Your task to perform on an android device: uninstall "PlayWell" Image 0: 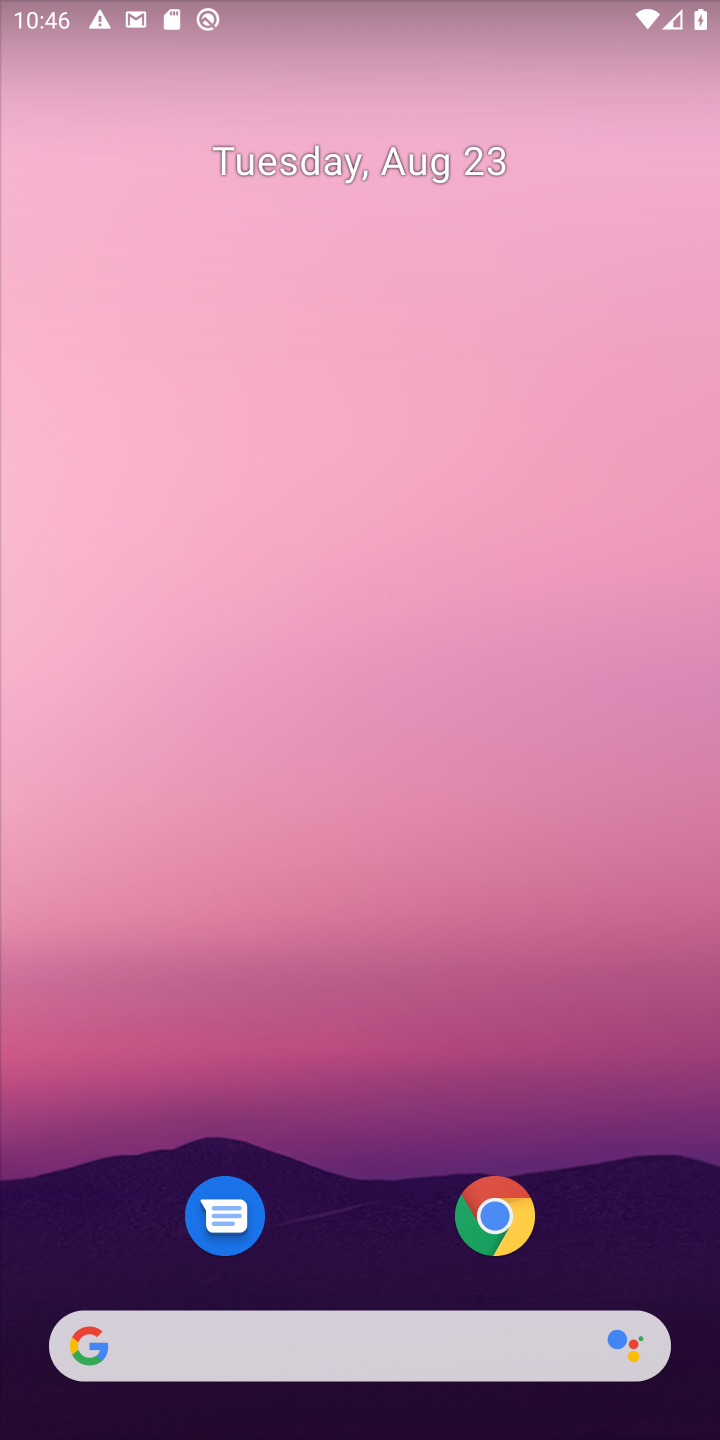
Step 0: drag from (301, 1307) to (259, 161)
Your task to perform on an android device: uninstall "PlayWell" Image 1: 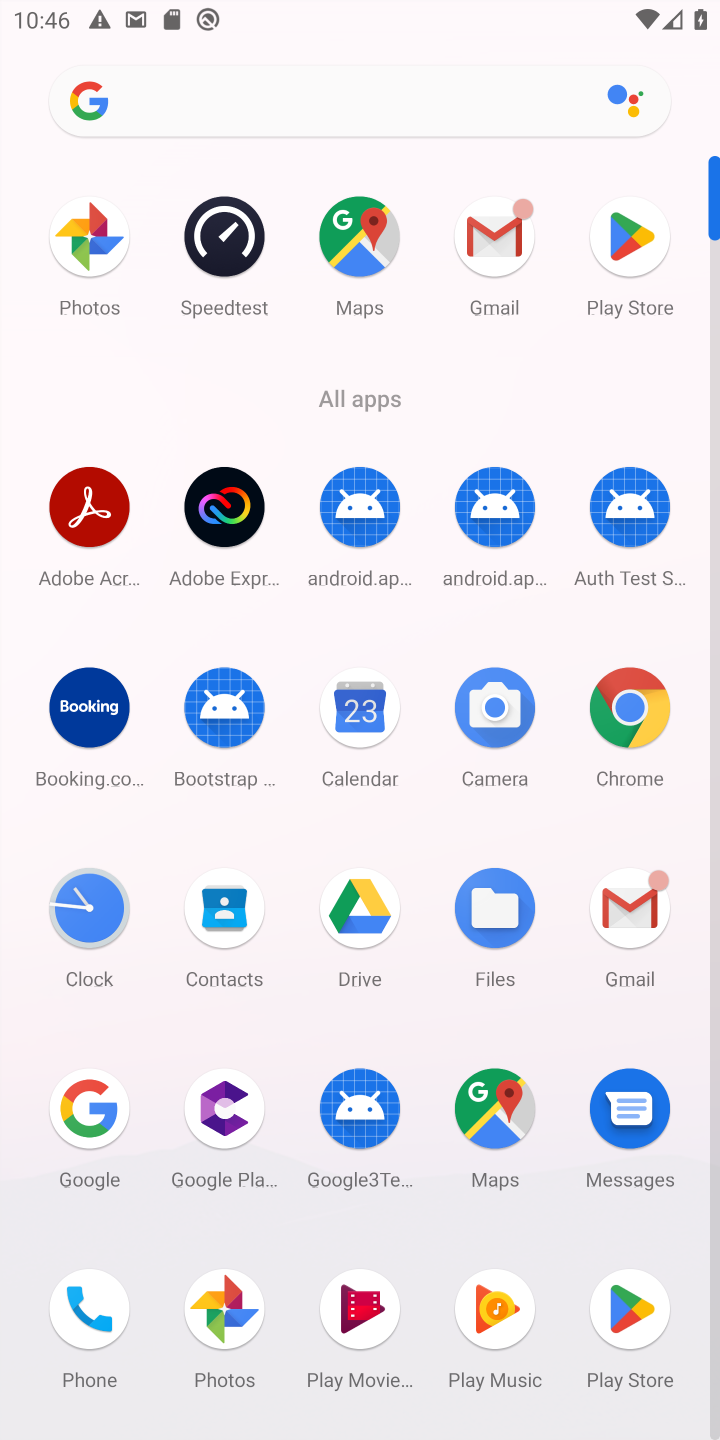
Step 1: click (626, 246)
Your task to perform on an android device: uninstall "PlayWell" Image 2: 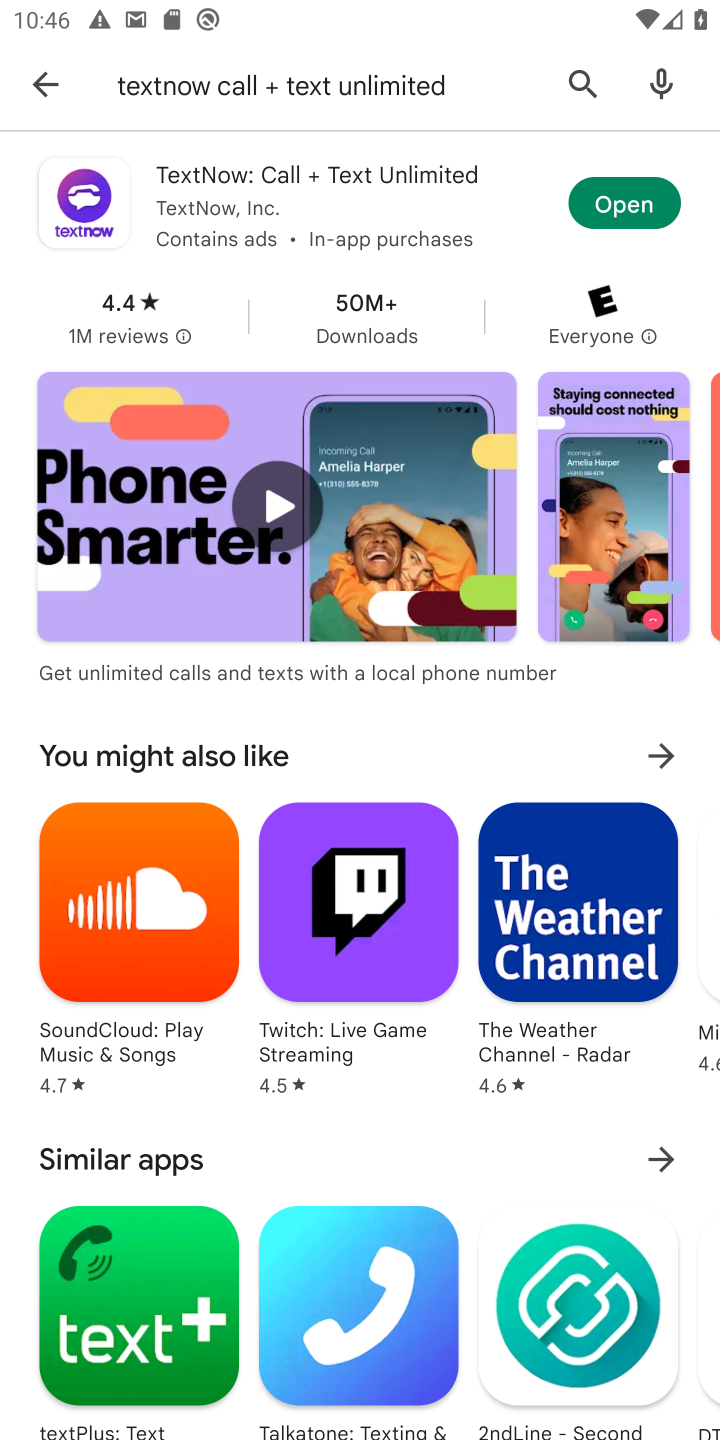
Step 2: press back button
Your task to perform on an android device: uninstall "PlayWell" Image 3: 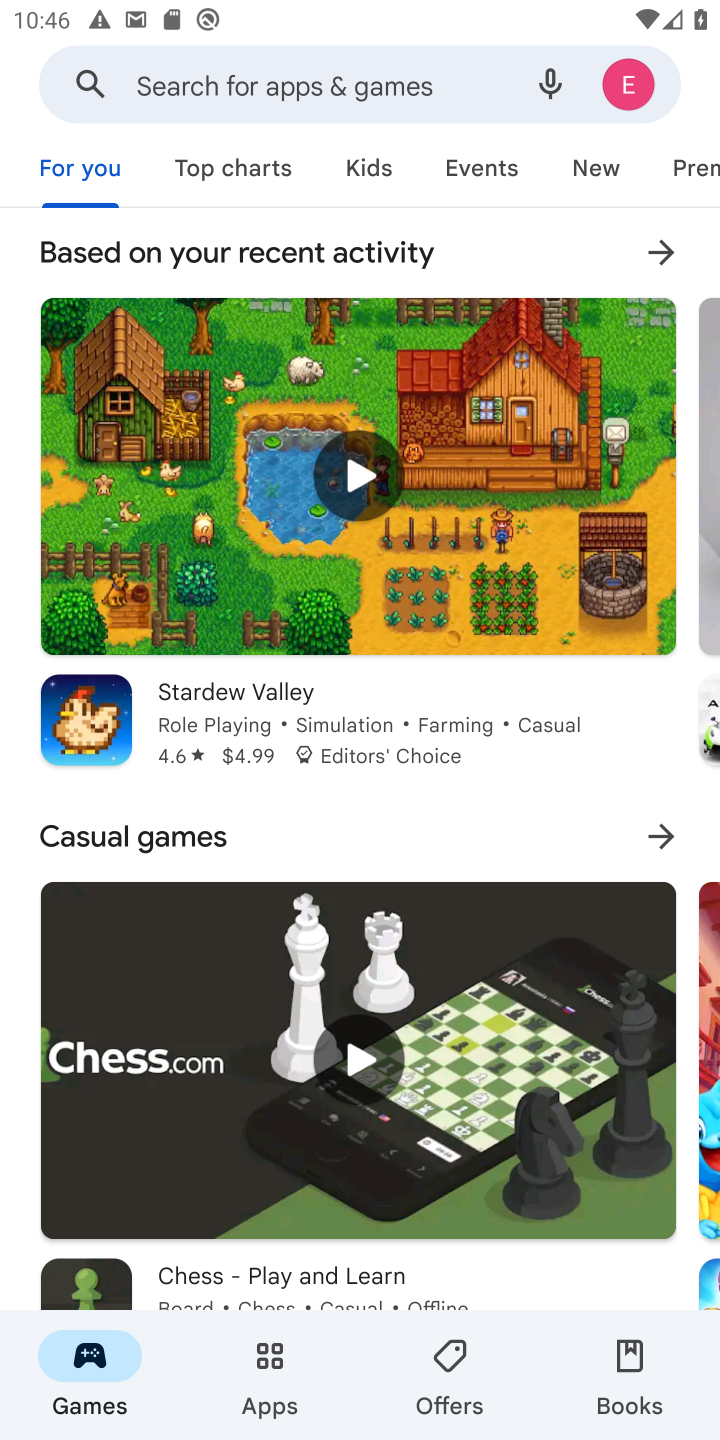
Step 3: click (400, 100)
Your task to perform on an android device: uninstall "PlayWell" Image 4: 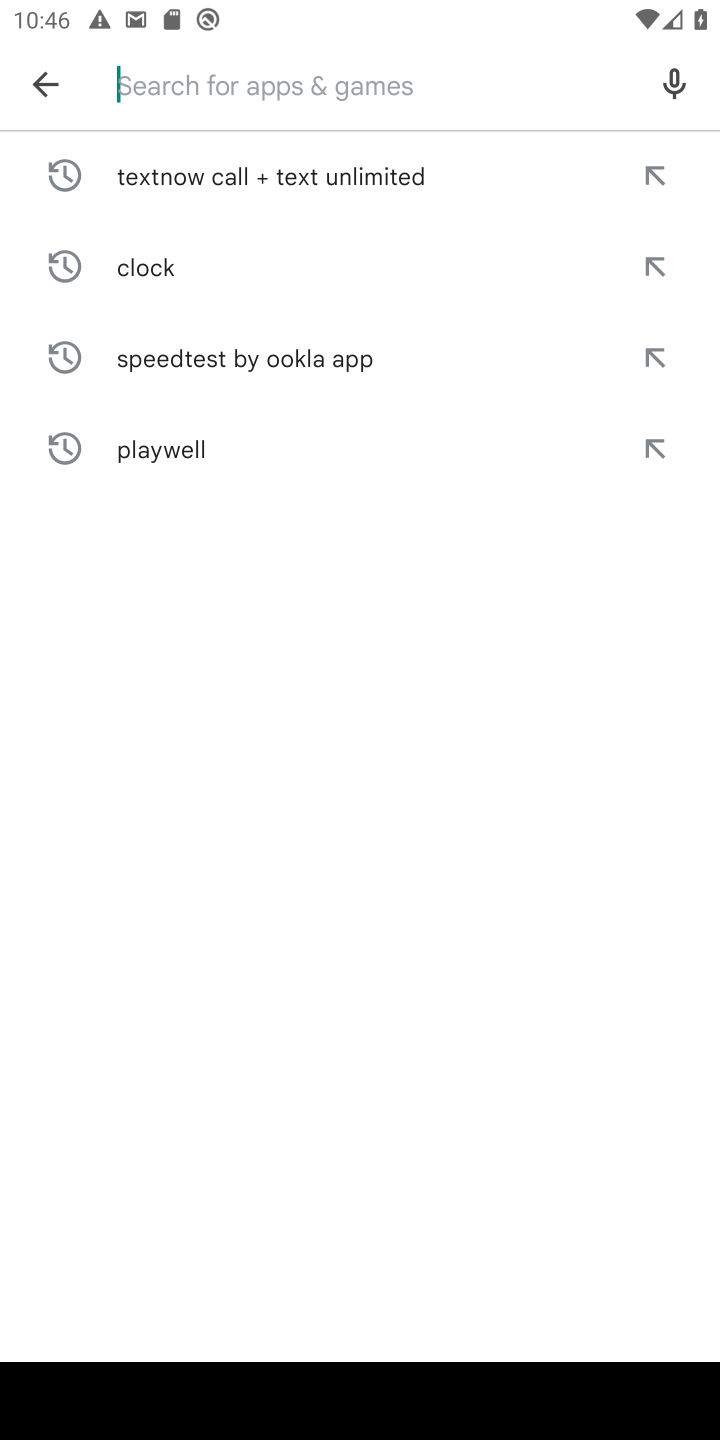
Step 4: type "PlayWell"
Your task to perform on an android device: uninstall "PlayWell" Image 5: 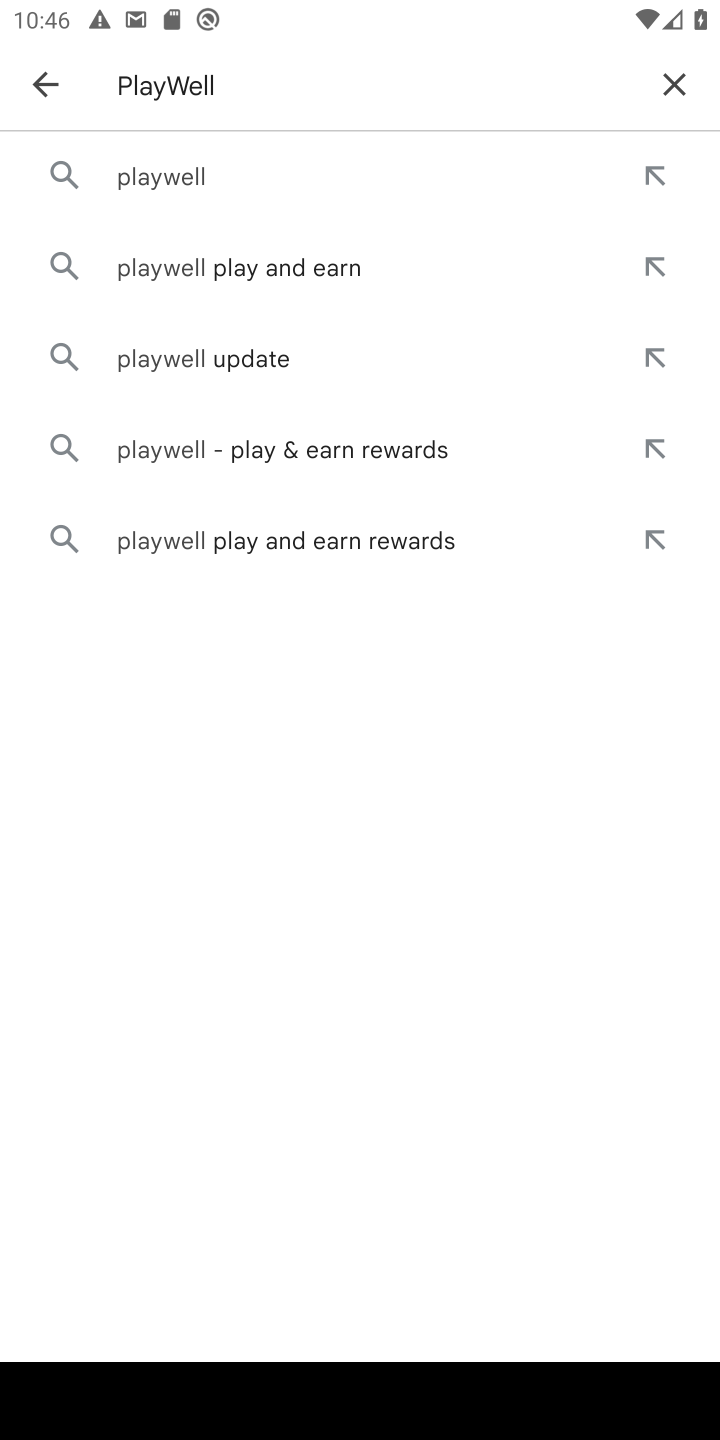
Step 5: click (181, 178)
Your task to perform on an android device: uninstall "PlayWell" Image 6: 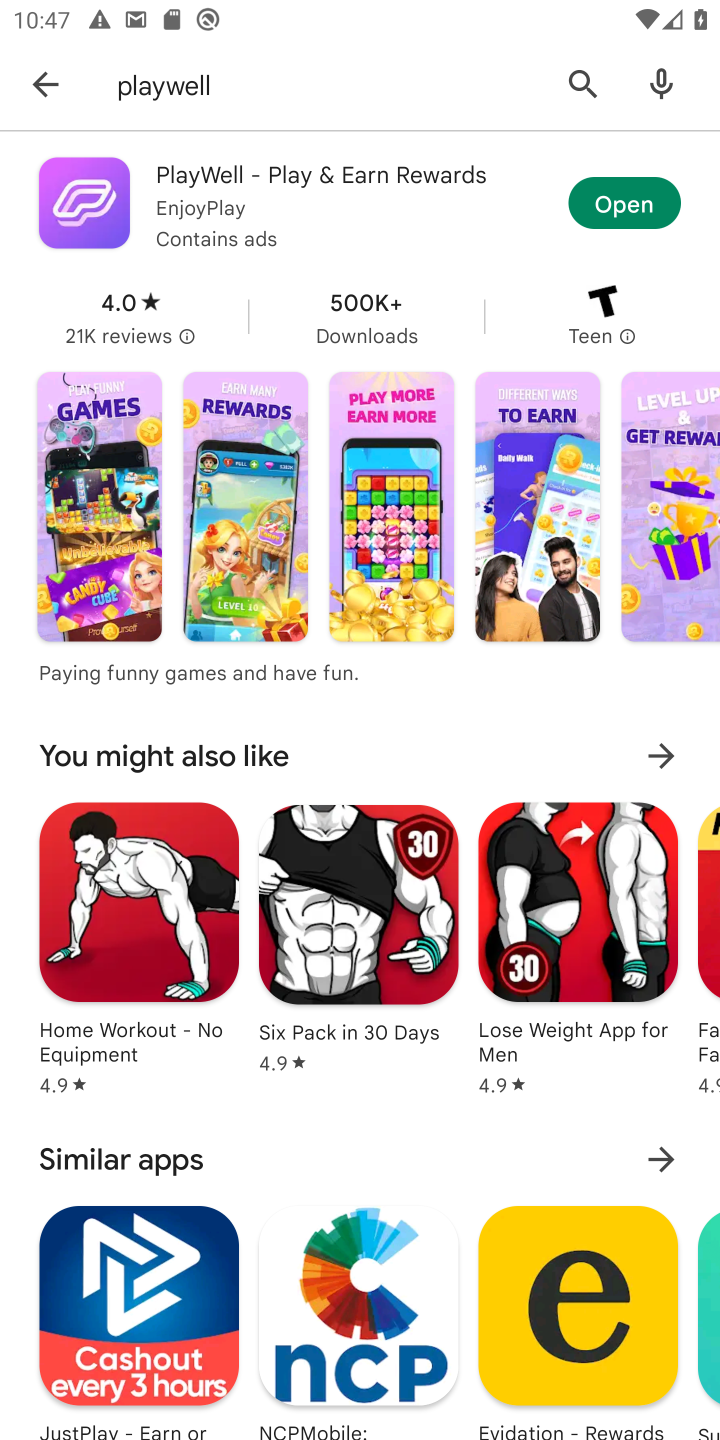
Step 6: click (304, 168)
Your task to perform on an android device: uninstall "PlayWell" Image 7: 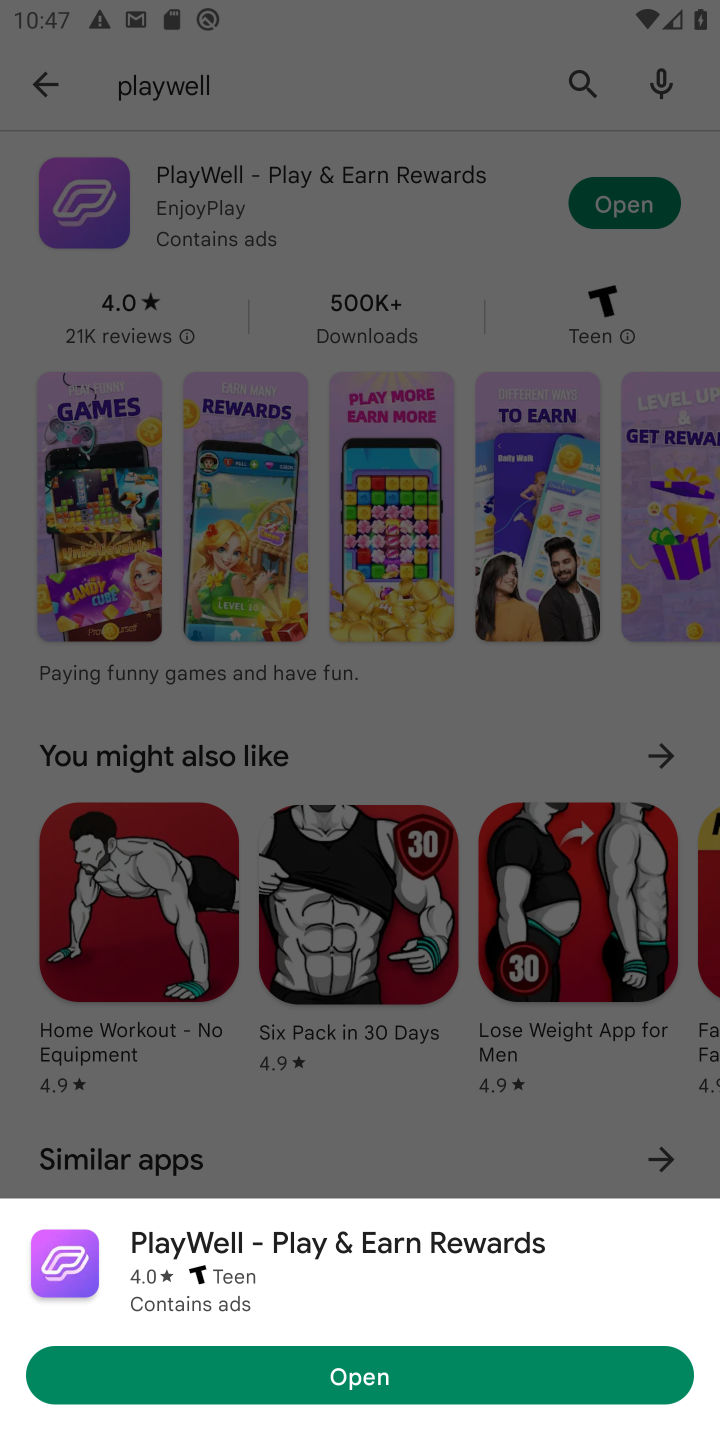
Step 7: click (395, 213)
Your task to perform on an android device: uninstall "PlayWell" Image 8: 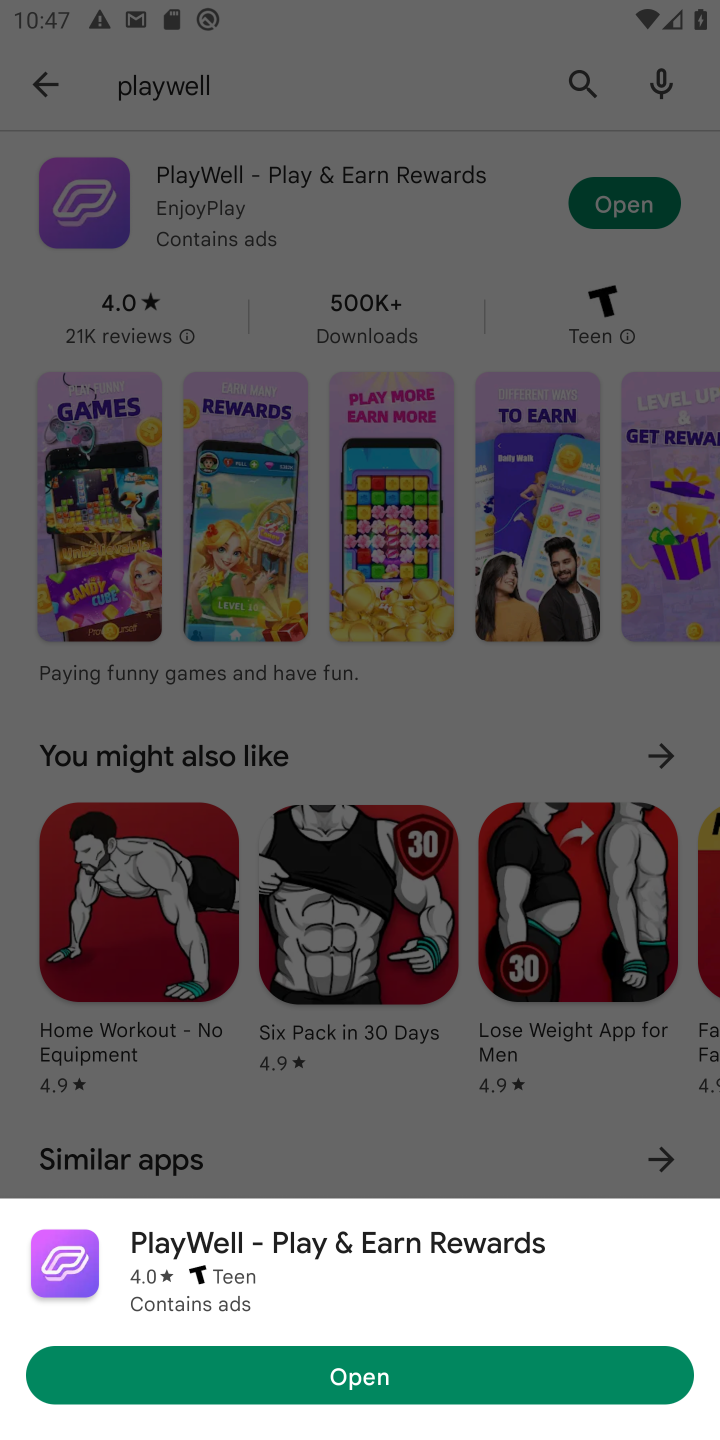
Step 8: click (395, 213)
Your task to perform on an android device: uninstall "PlayWell" Image 9: 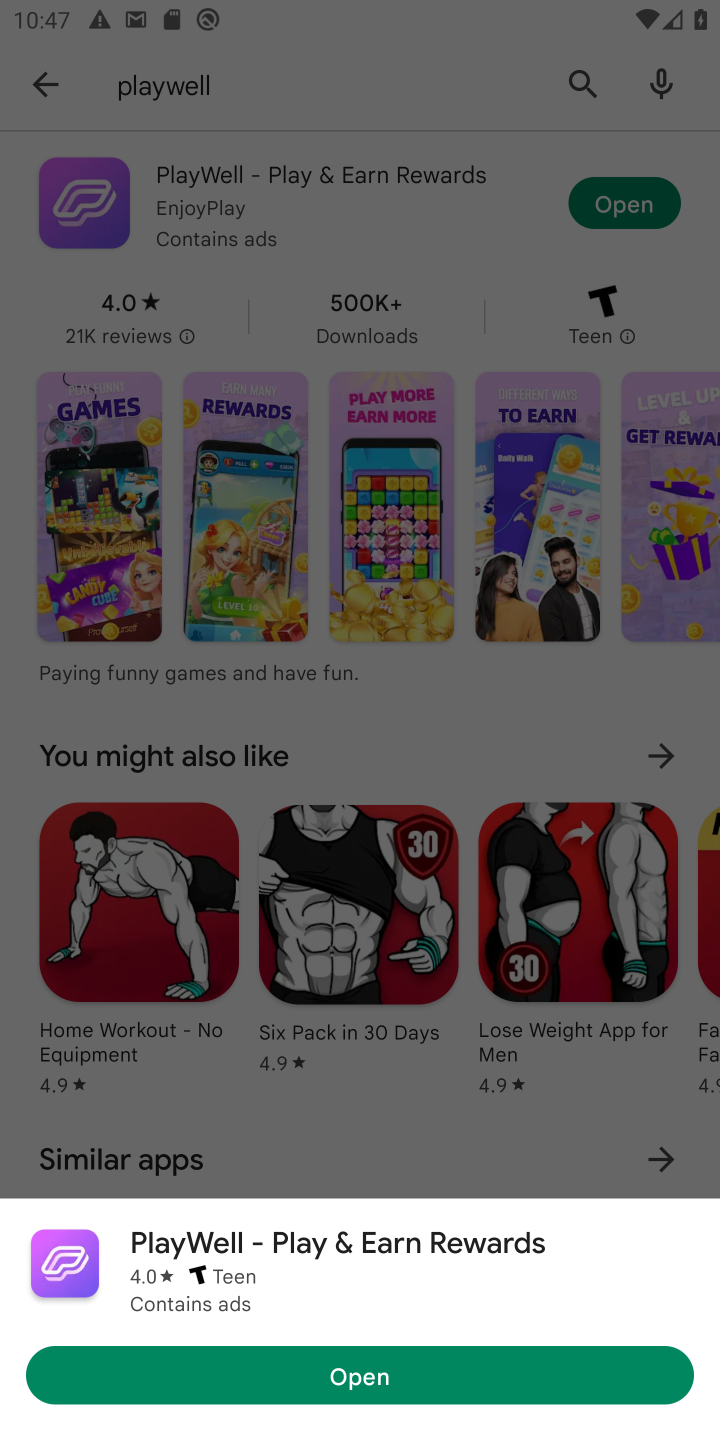
Step 9: click (120, 212)
Your task to perform on an android device: uninstall "PlayWell" Image 10: 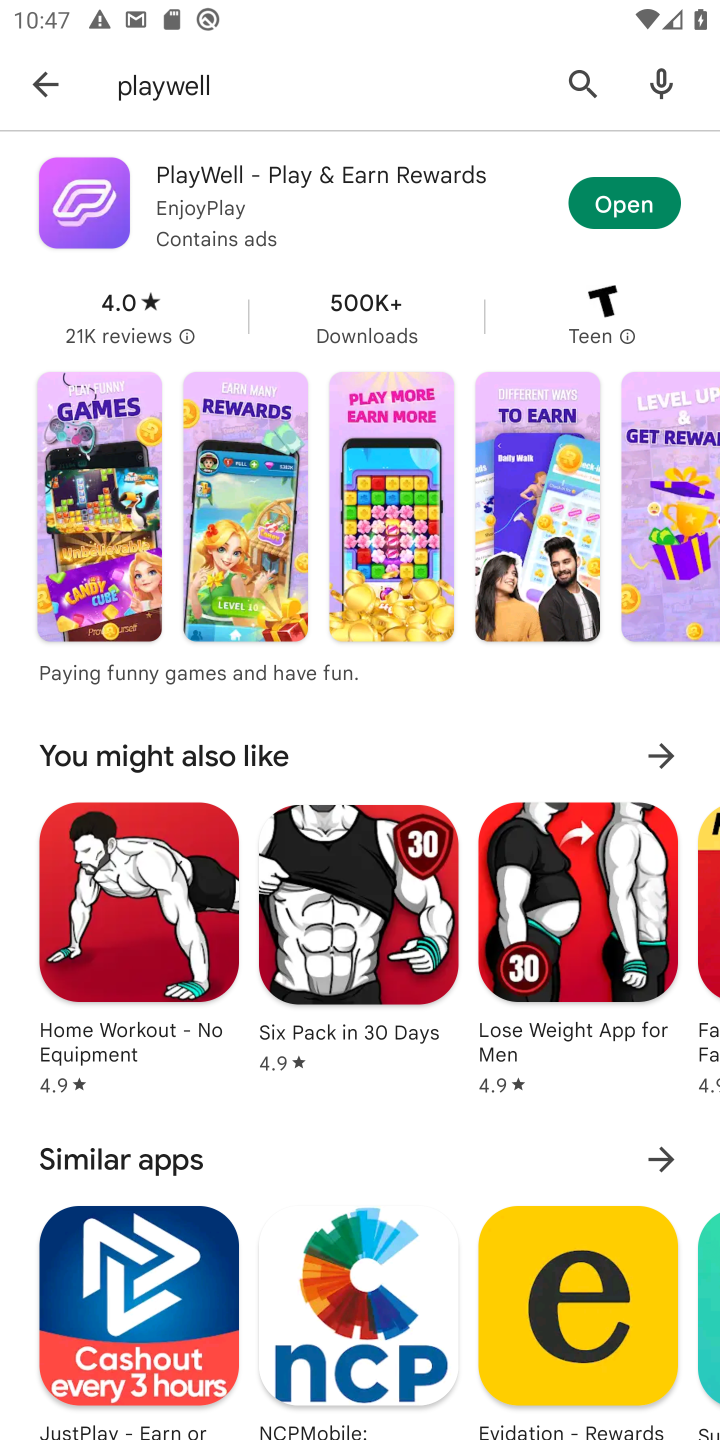
Step 10: click (120, 212)
Your task to perform on an android device: uninstall "PlayWell" Image 11: 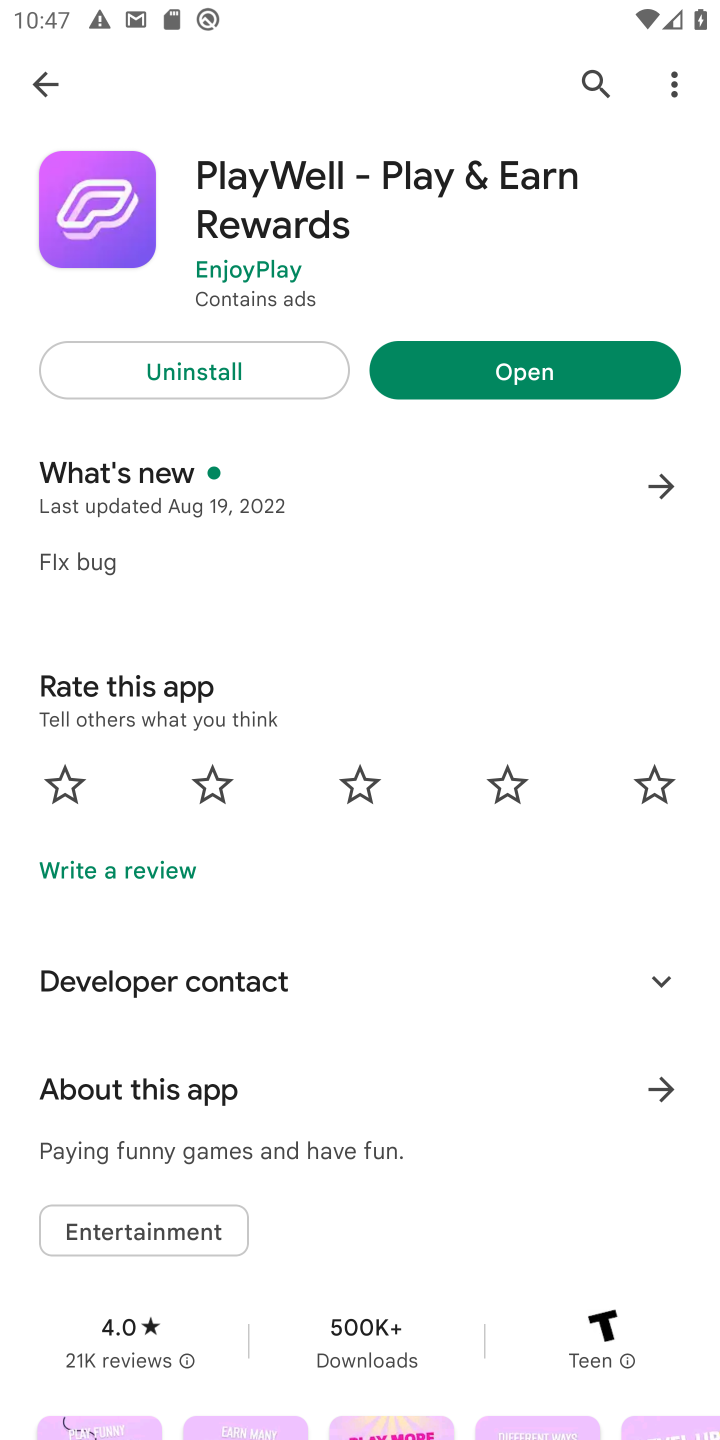
Step 11: click (254, 366)
Your task to perform on an android device: uninstall "PlayWell" Image 12: 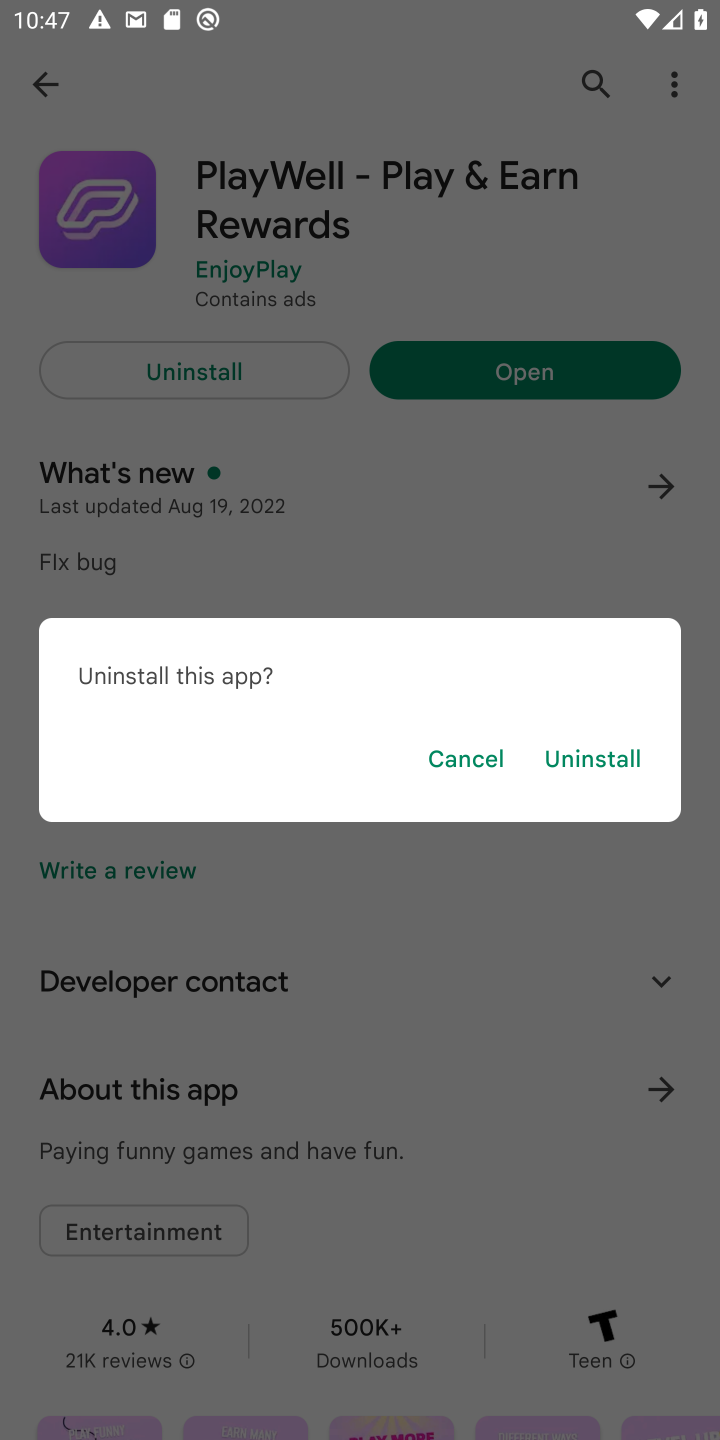
Step 12: click (591, 753)
Your task to perform on an android device: uninstall "PlayWell" Image 13: 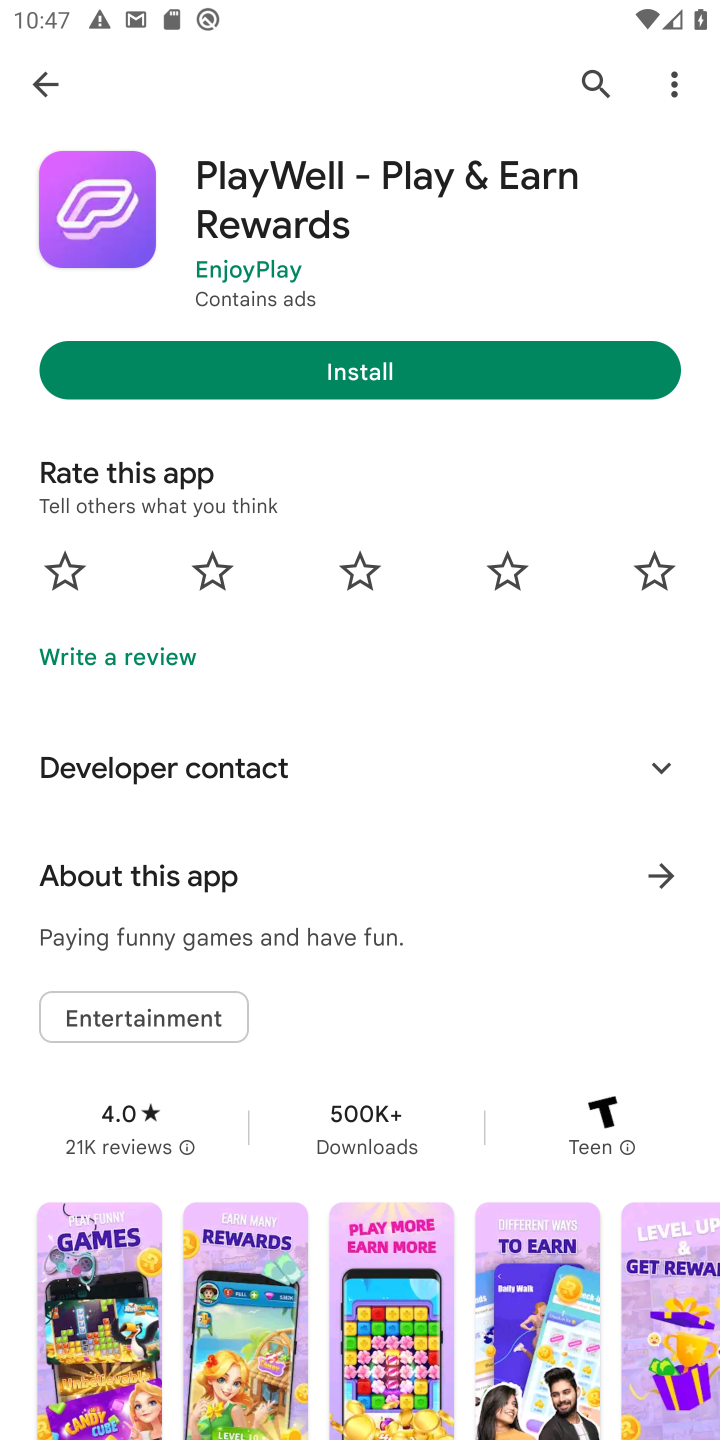
Step 13: task complete